Your task to perform on an android device: Search for usb-b on walmart.com, select the first entry, and add it to the cart. Image 0: 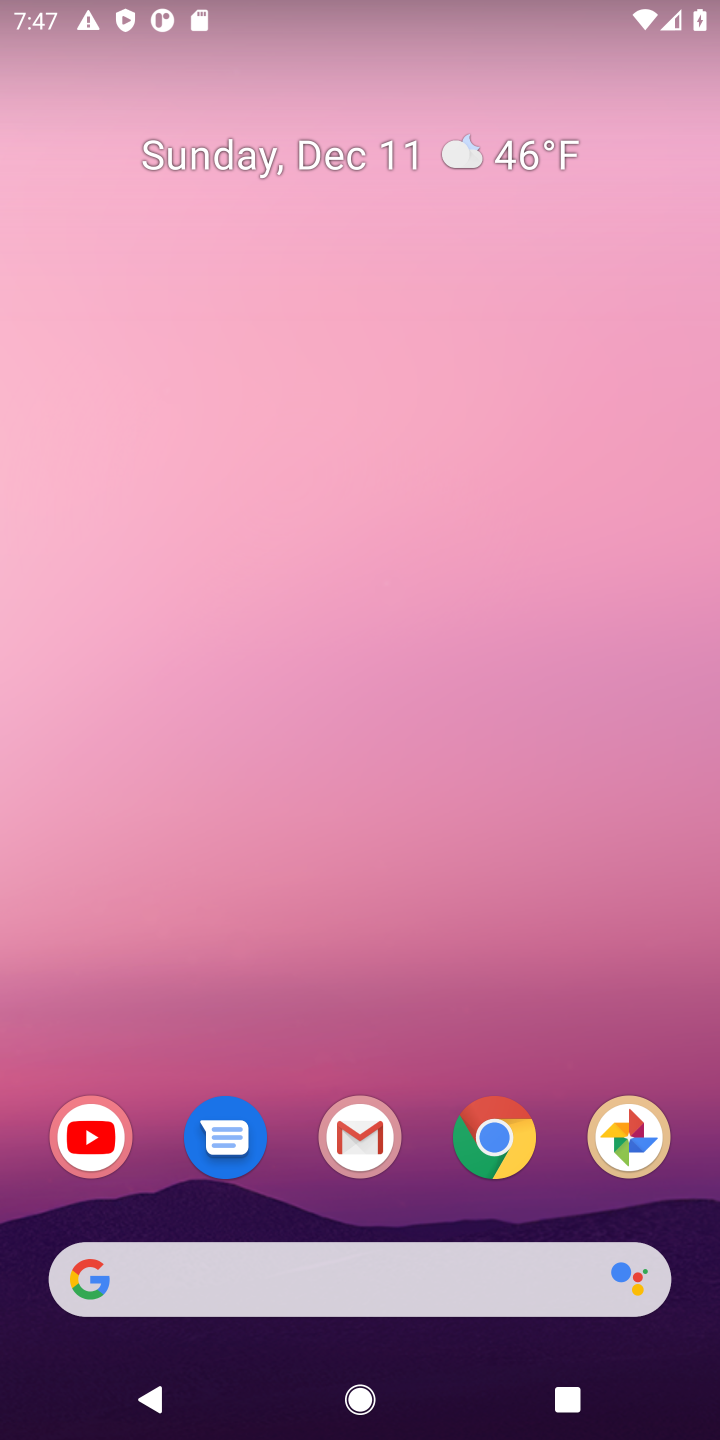
Step 0: click (494, 1149)
Your task to perform on an android device: Search for usb-b on walmart.com, select the first entry, and add it to the cart. Image 1: 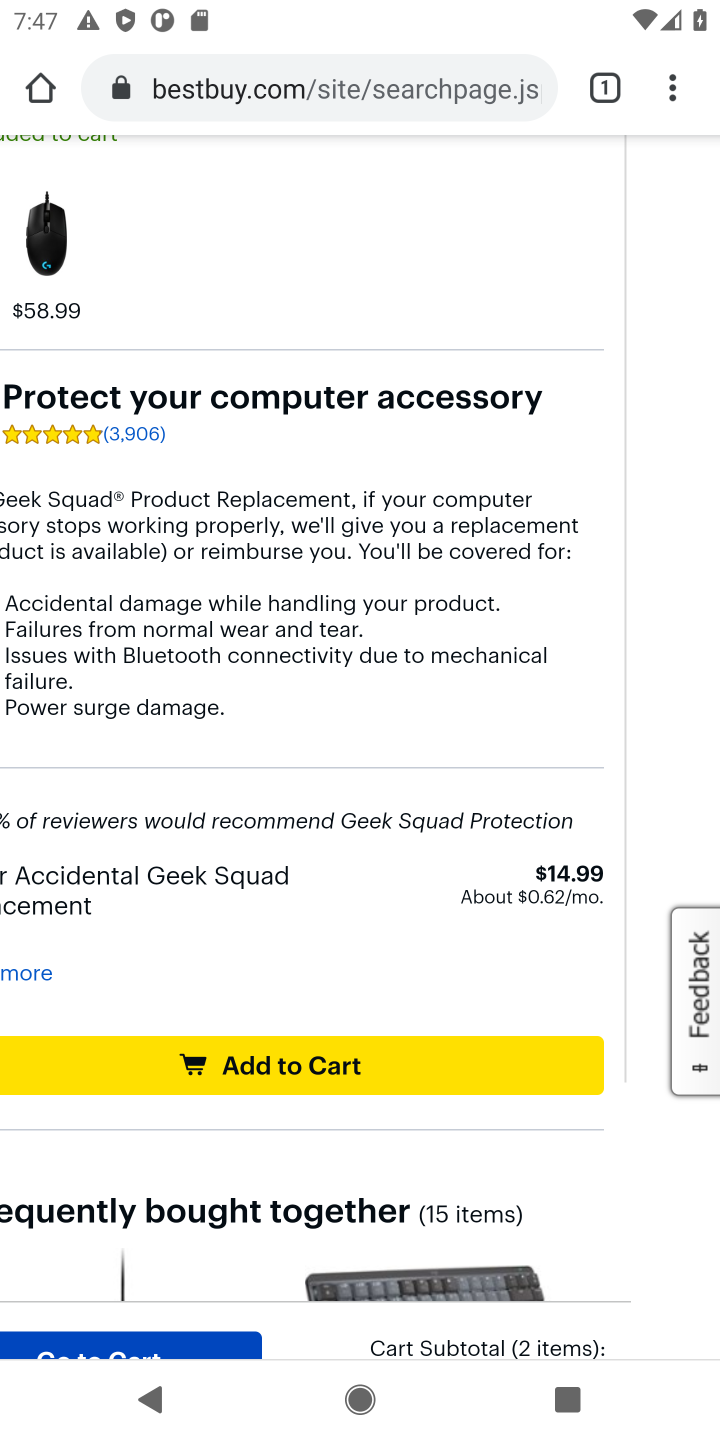
Step 1: click (301, 81)
Your task to perform on an android device: Search for usb-b on walmart.com, select the first entry, and add it to the cart. Image 2: 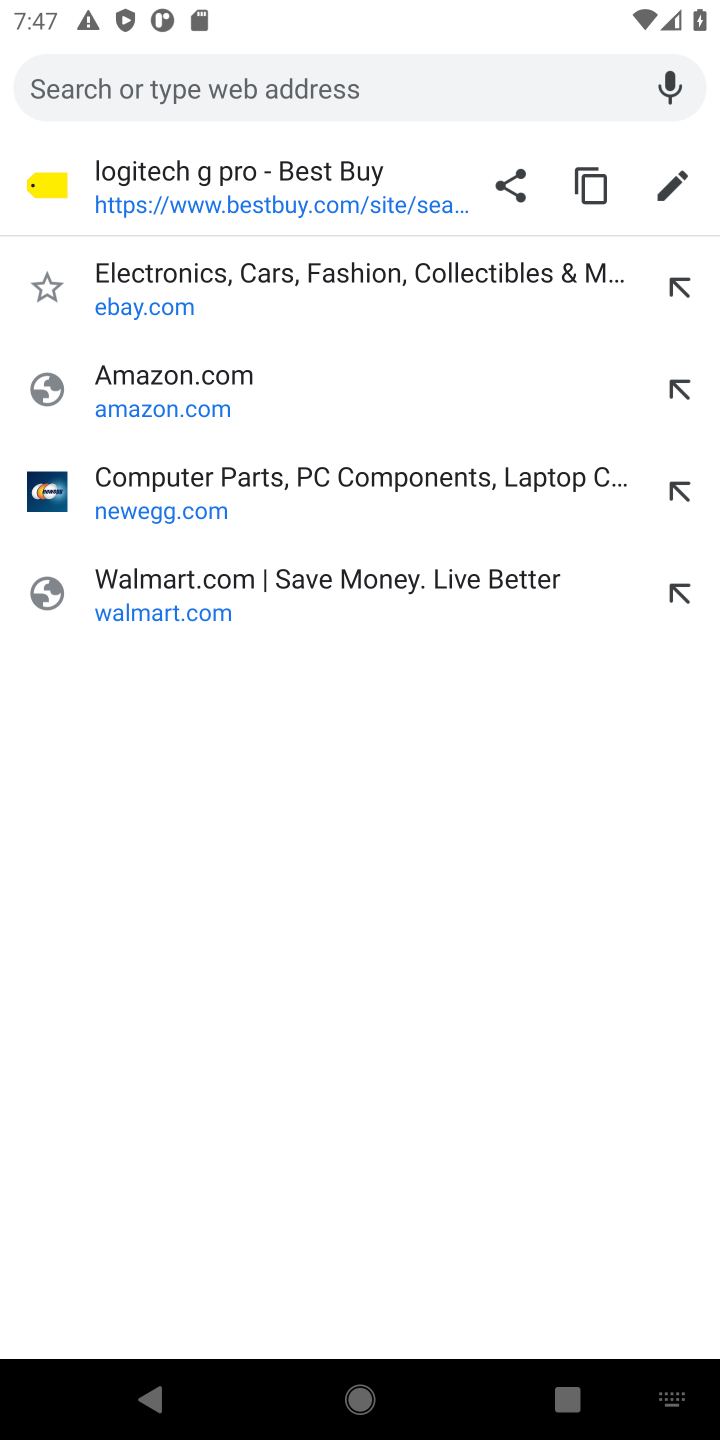
Step 2: click (167, 576)
Your task to perform on an android device: Search for usb-b on walmart.com, select the first entry, and add it to the cart. Image 3: 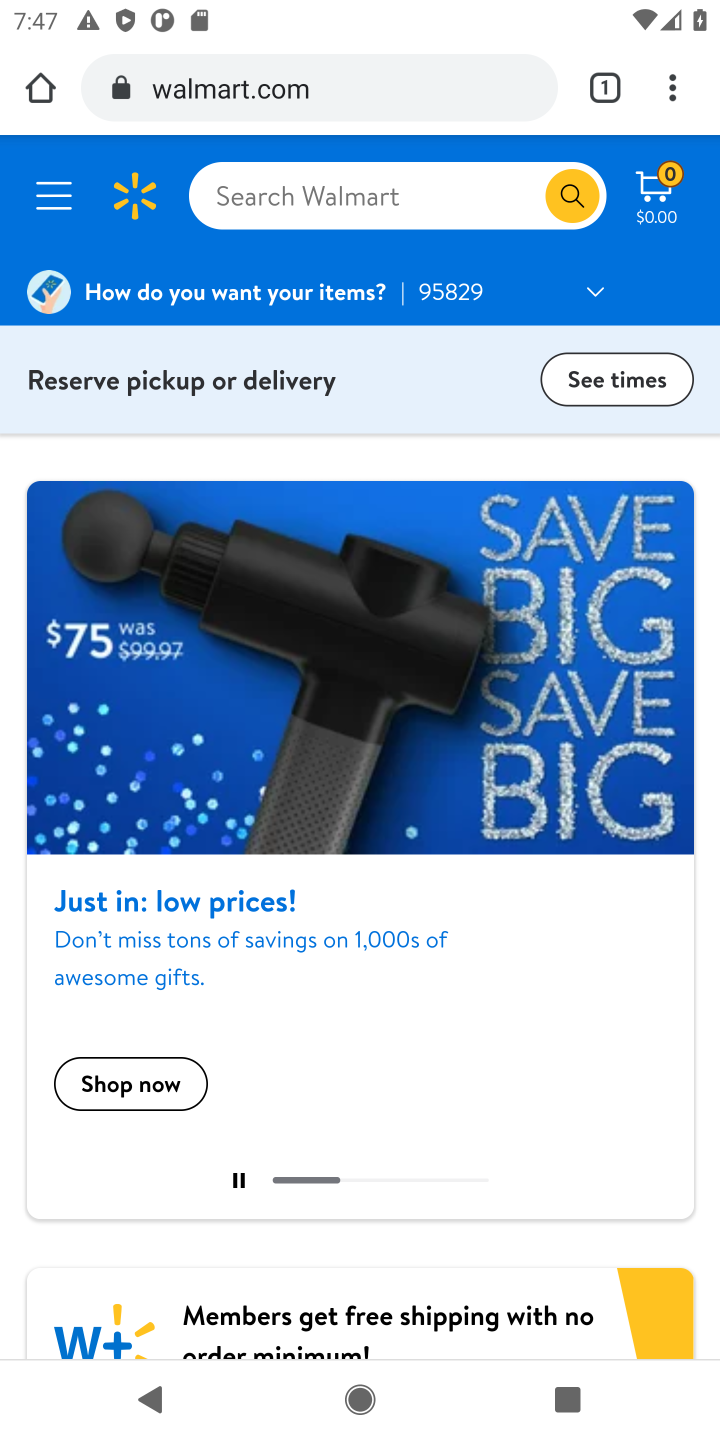
Step 3: click (380, 196)
Your task to perform on an android device: Search for usb-b on walmart.com, select the first entry, and add it to the cart. Image 4: 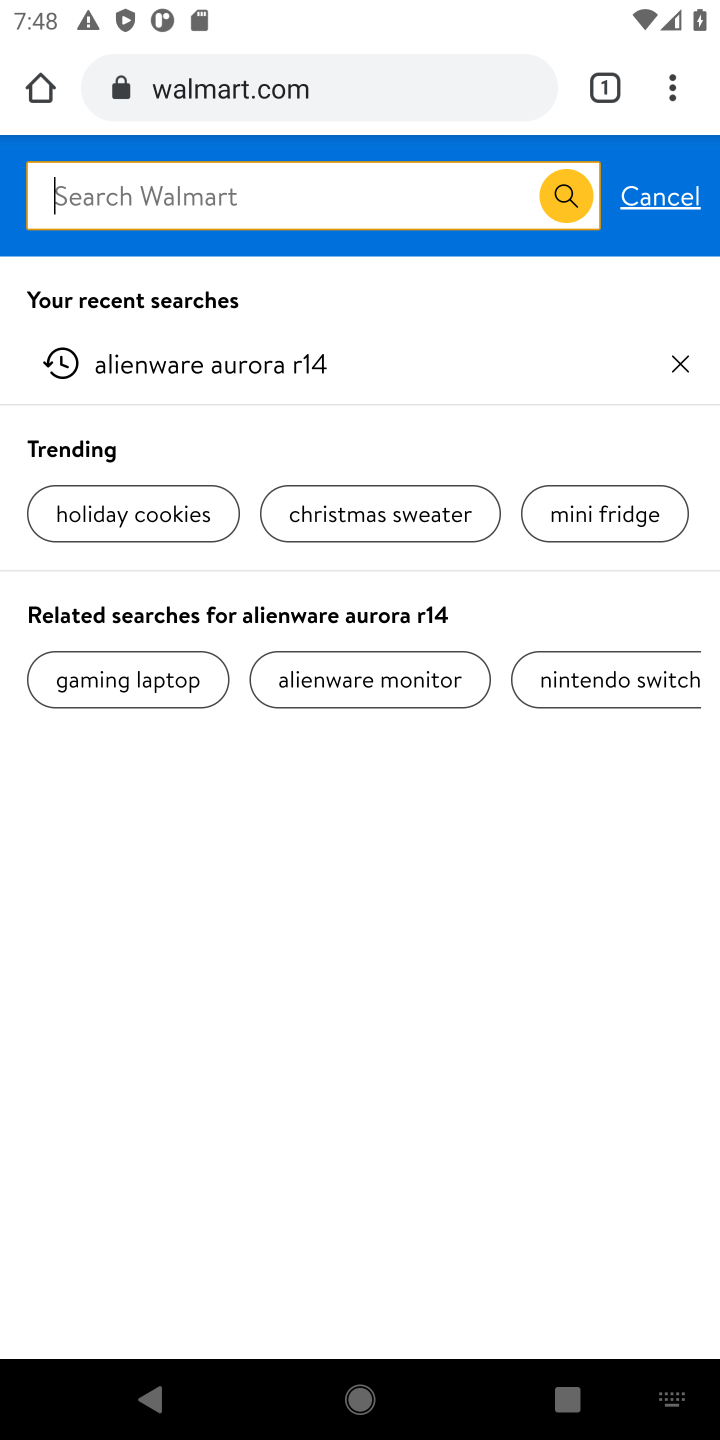
Step 4: type "USB-B"
Your task to perform on an android device: Search for usb-b on walmart.com, select the first entry, and add it to the cart. Image 5: 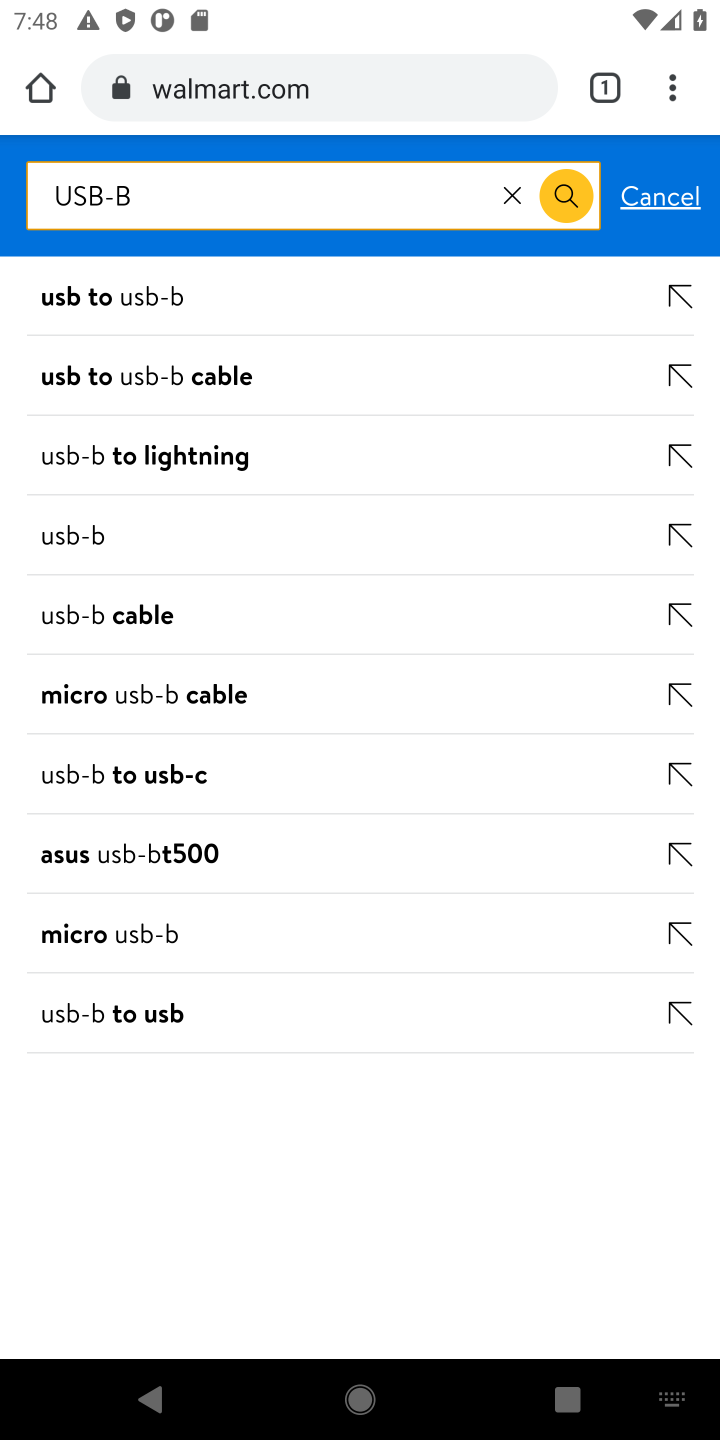
Step 5: click (175, 303)
Your task to perform on an android device: Search for usb-b on walmart.com, select the first entry, and add it to the cart. Image 6: 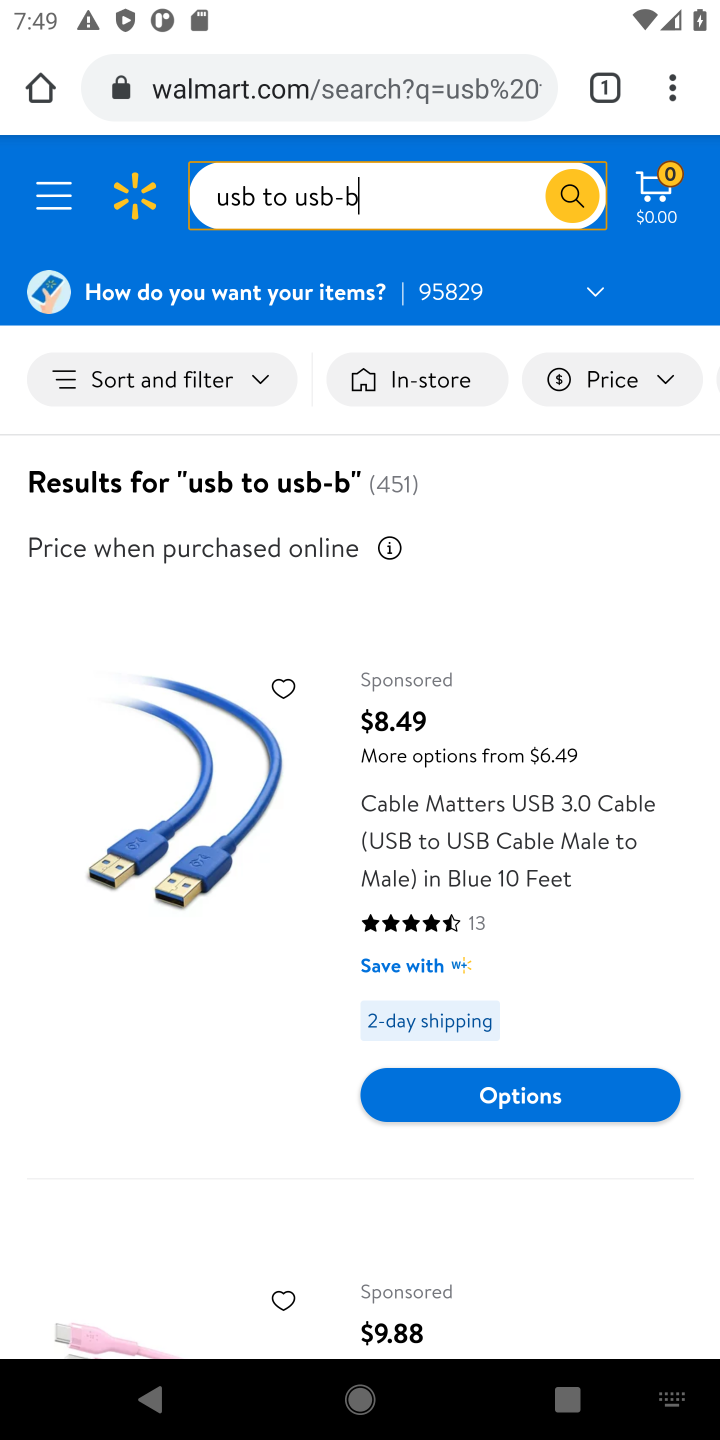
Step 6: click (541, 828)
Your task to perform on an android device: Search for usb-b on walmart.com, select the first entry, and add it to the cart. Image 7: 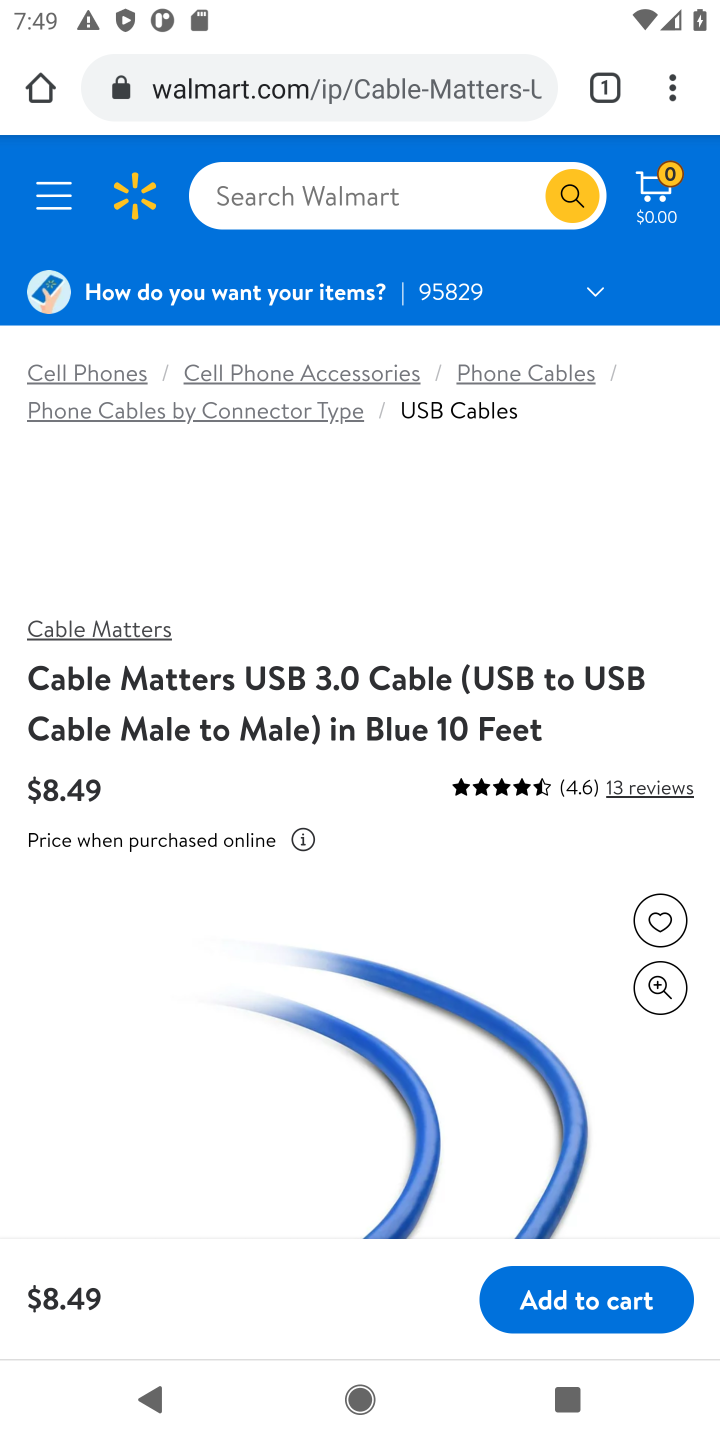
Step 7: click (573, 1303)
Your task to perform on an android device: Search for usb-b on walmart.com, select the first entry, and add it to the cart. Image 8: 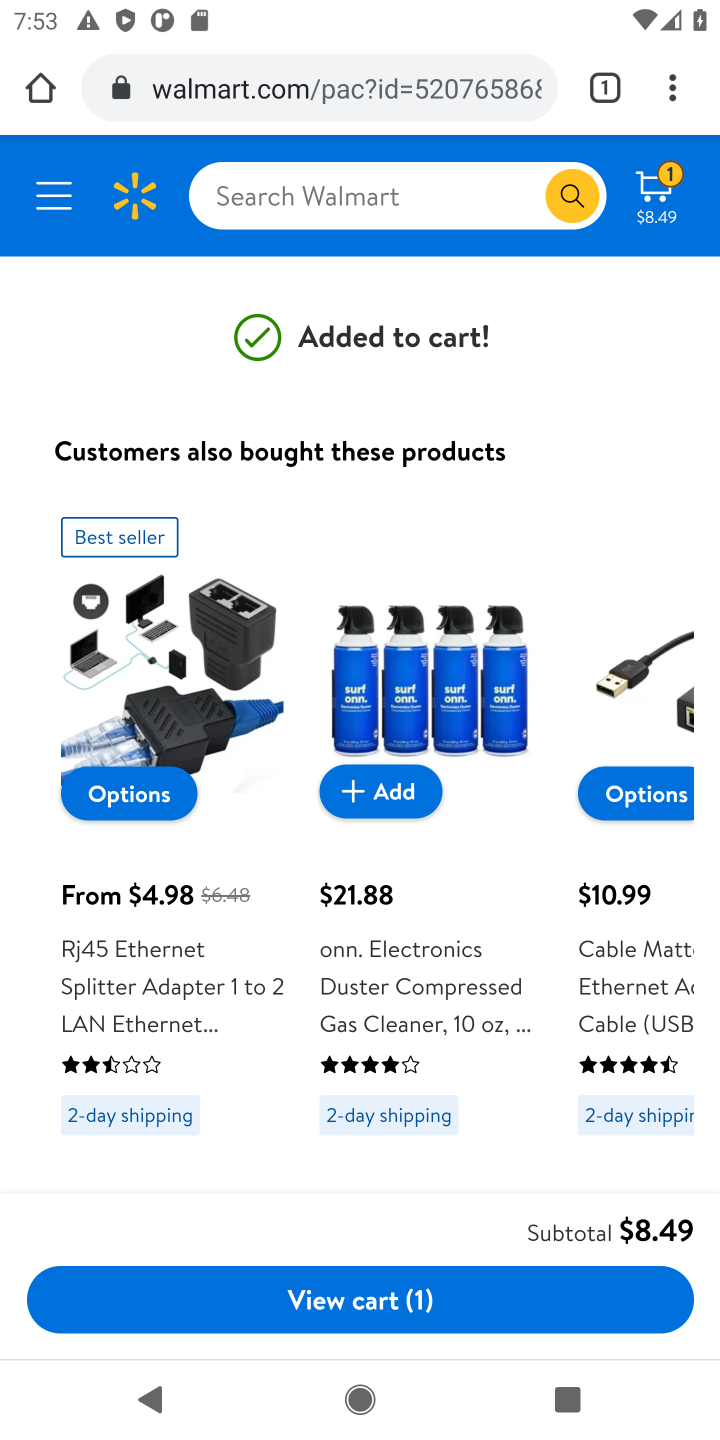
Step 8: task complete